Your task to perform on an android device: Open the calendar and show me this week's events Image 0: 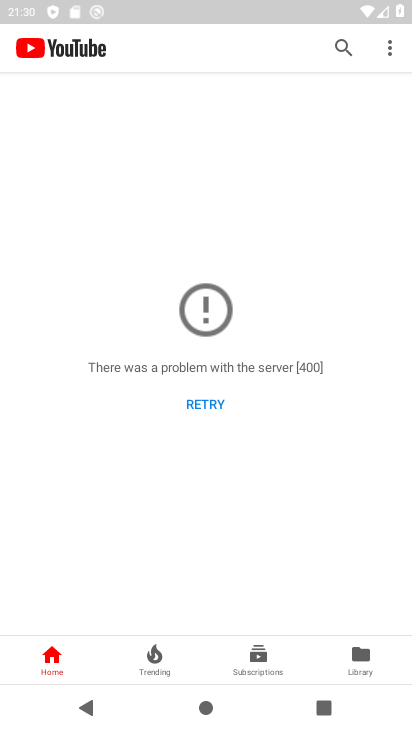
Step 0: press home button
Your task to perform on an android device: Open the calendar and show me this week's events Image 1: 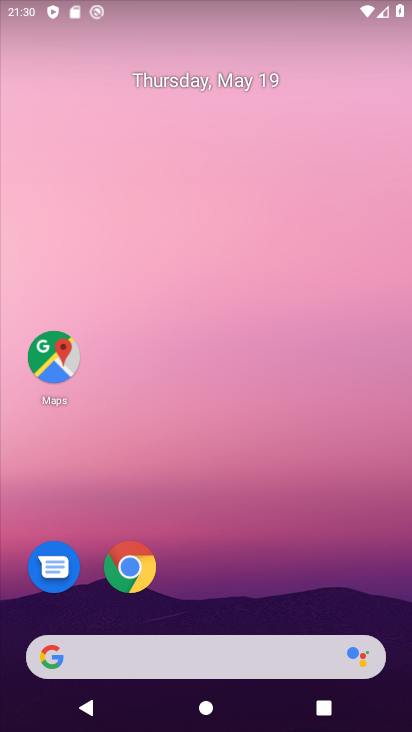
Step 1: drag from (255, 586) to (303, 151)
Your task to perform on an android device: Open the calendar and show me this week's events Image 2: 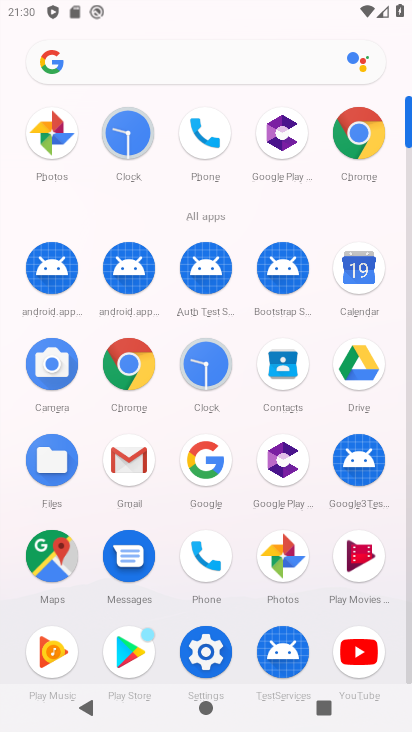
Step 2: click (359, 266)
Your task to perform on an android device: Open the calendar and show me this week's events Image 3: 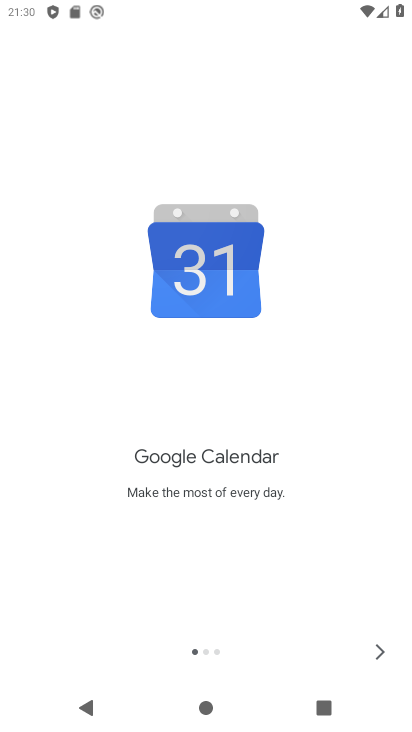
Step 3: click (377, 650)
Your task to perform on an android device: Open the calendar and show me this week's events Image 4: 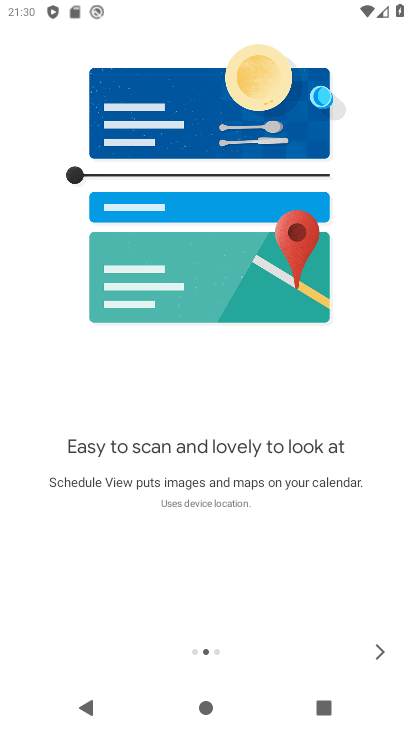
Step 4: click (372, 653)
Your task to perform on an android device: Open the calendar and show me this week's events Image 5: 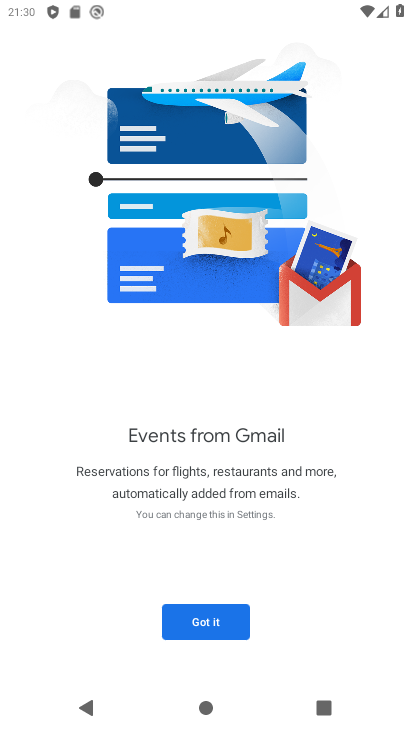
Step 5: click (224, 620)
Your task to perform on an android device: Open the calendar and show me this week's events Image 6: 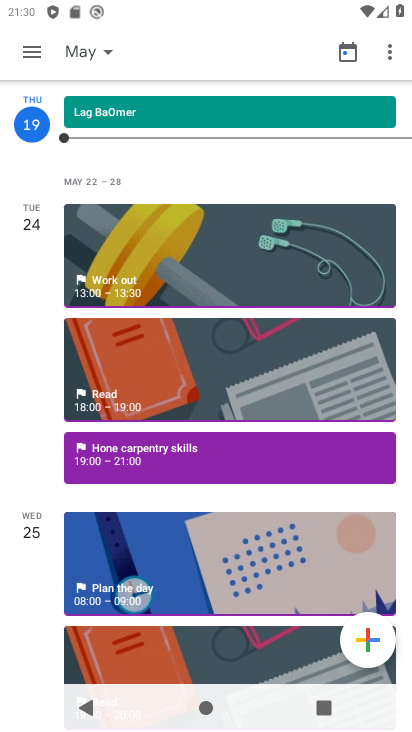
Step 6: click (36, 56)
Your task to perform on an android device: Open the calendar and show me this week's events Image 7: 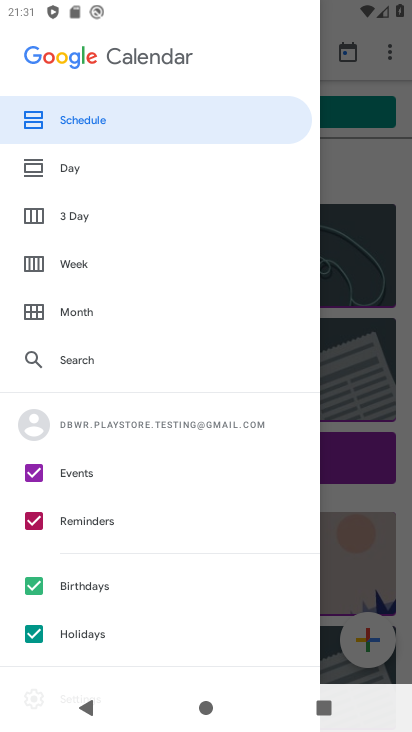
Step 7: click (67, 262)
Your task to perform on an android device: Open the calendar and show me this week's events Image 8: 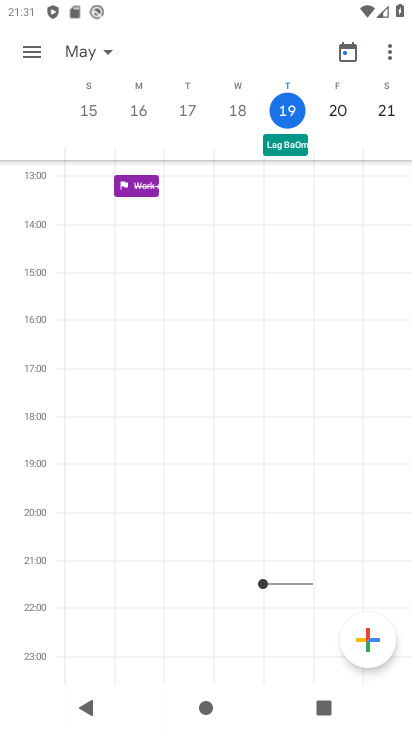
Step 8: click (31, 48)
Your task to perform on an android device: Open the calendar and show me this week's events Image 9: 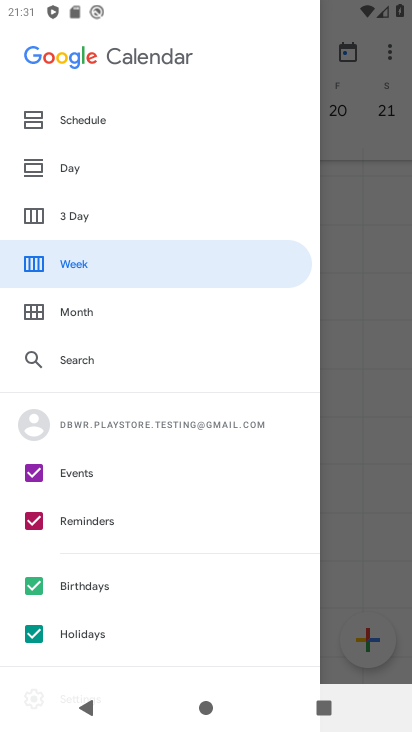
Step 9: click (30, 520)
Your task to perform on an android device: Open the calendar and show me this week's events Image 10: 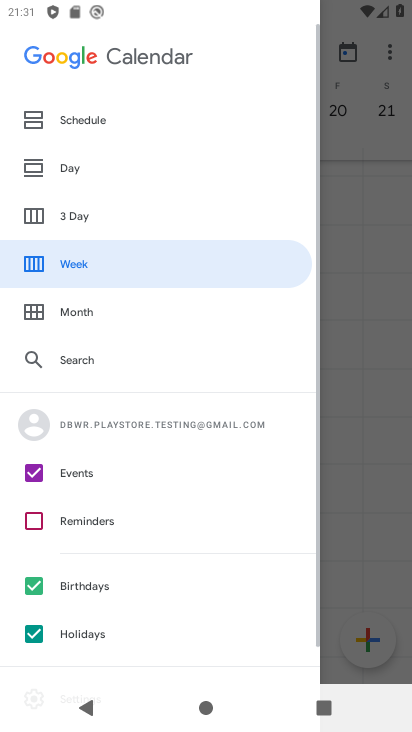
Step 10: click (36, 583)
Your task to perform on an android device: Open the calendar and show me this week's events Image 11: 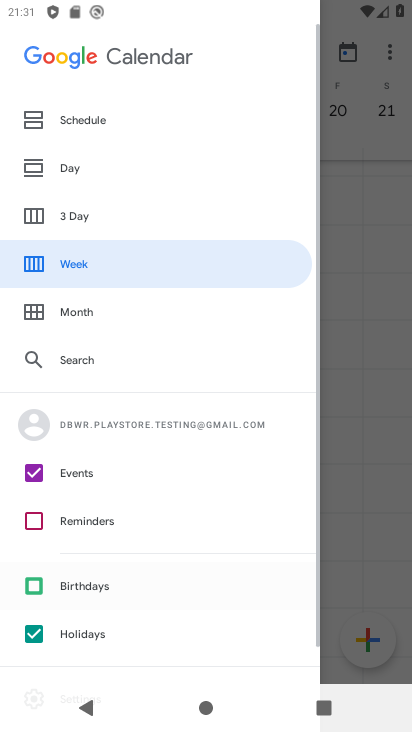
Step 11: click (34, 632)
Your task to perform on an android device: Open the calendar and show me this week's events Image 12: 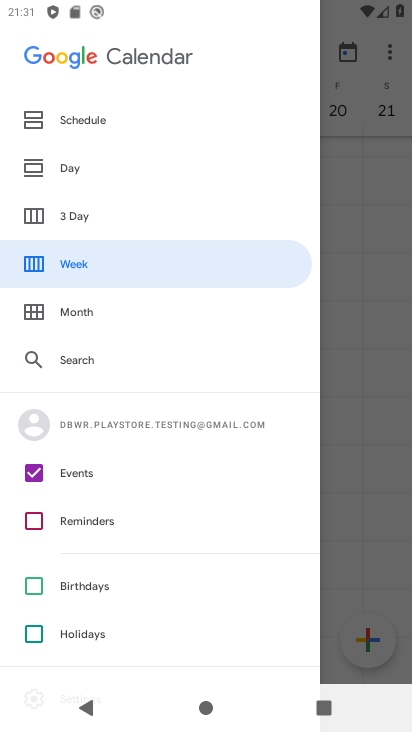
Step 12: click (85, 110)
Your task to perform on an android device: Open the calendar and show me this week's events Image 13: 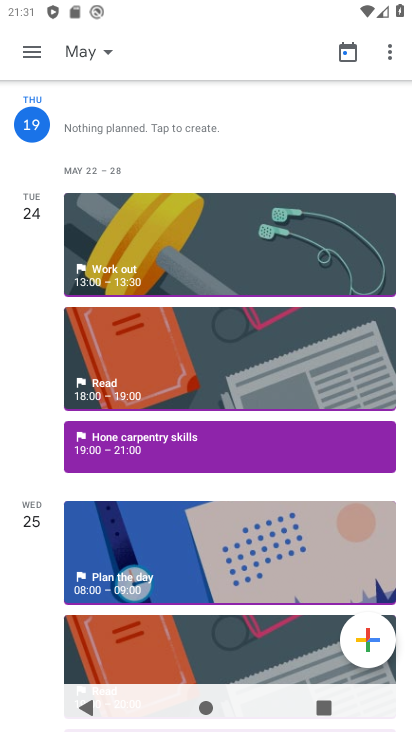
Step 13: click (30, 61)
Your task to perform on an android device: Open the calendar and show me this week's events Image 14: 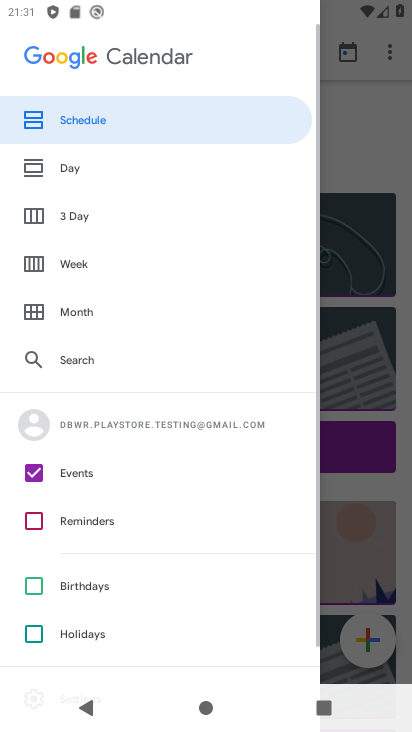
Step 14: click (91, 260)
Your task to perform on an android device: Open the calendar and show me this week's events Image 15: 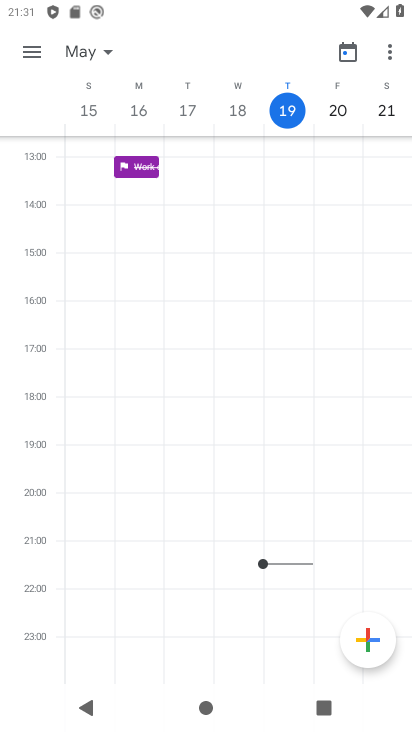
Step 15: click (286, 111)
Your task to perform on an android device: Open the calendar and show me this week's events Image 16: 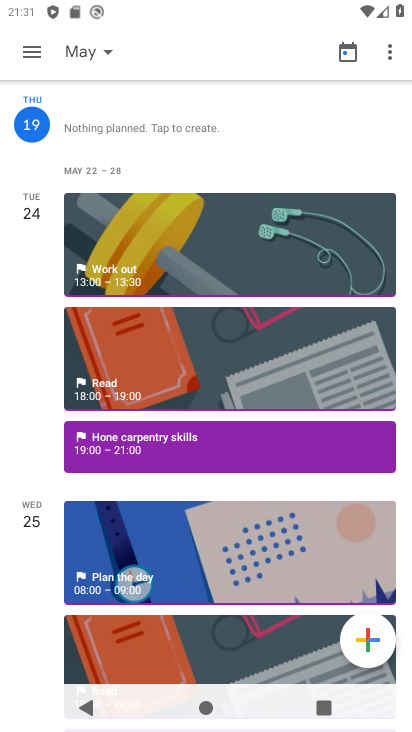
Step 16: click (41, 142)
Your task to perform on an android device: Open the calendar and show me this week's events Image 17: 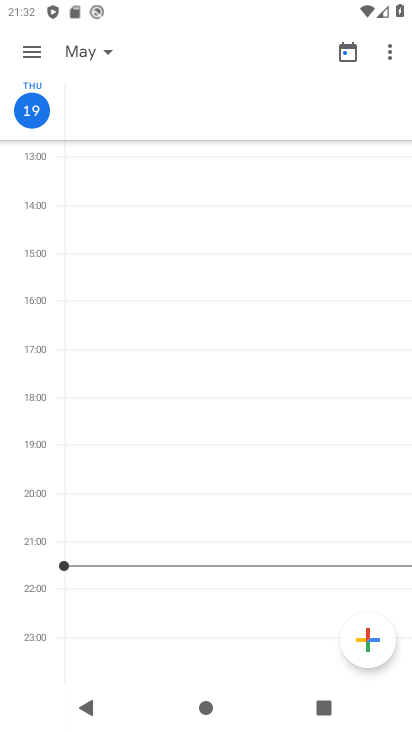
Step 17: click (46, 125)
Your task to perform on an android device: Open the calendar and show me this week's events Image 18: 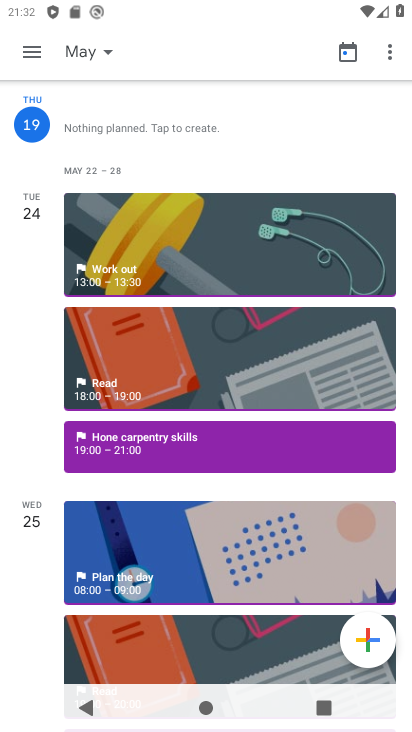
Step 18: click (38, 172)
Your task to perform on an android device: Open the calendar and show me this week's events Image 19: 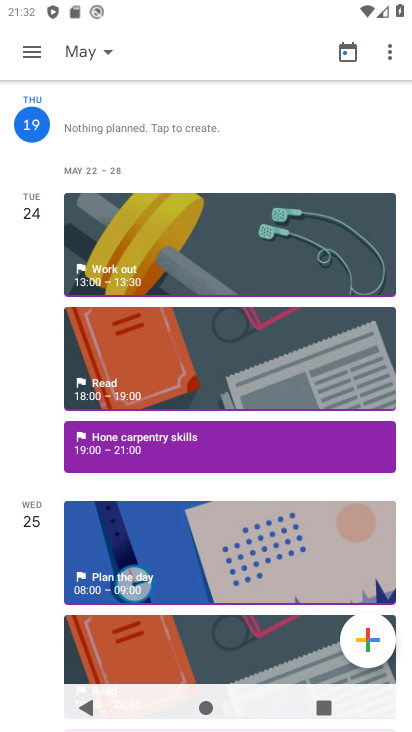
Step 19: click (32, 167)
Your task to perform on an android device: Open the calendar and show me this week's events Image 20: 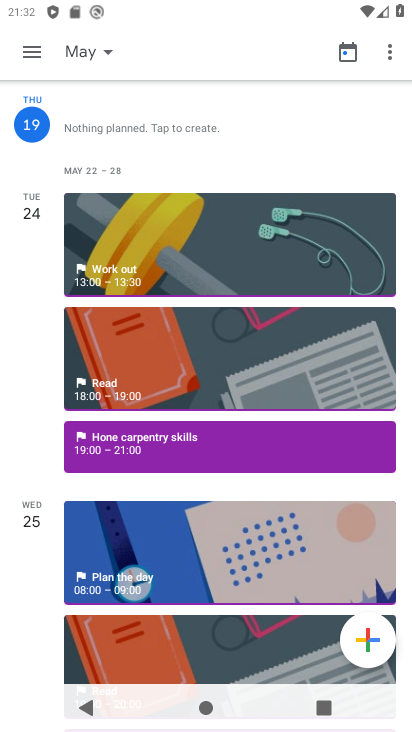
Step 20: task complete